Your task to perform on an android device: turn notification dots on Image 0: 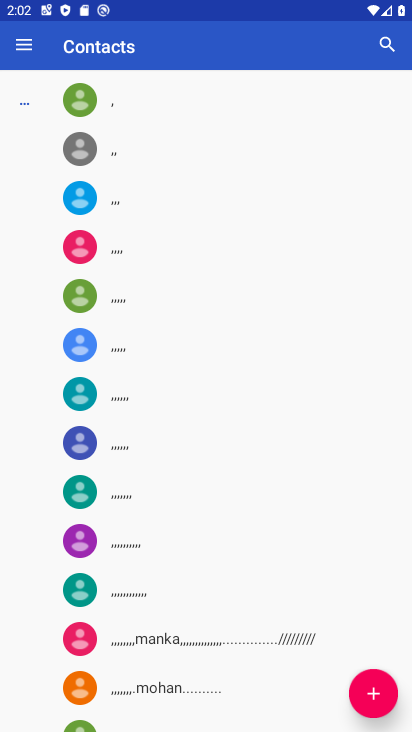
Step 0: press back button
Your task to perform on an android device: turn notification dots on Image 1: 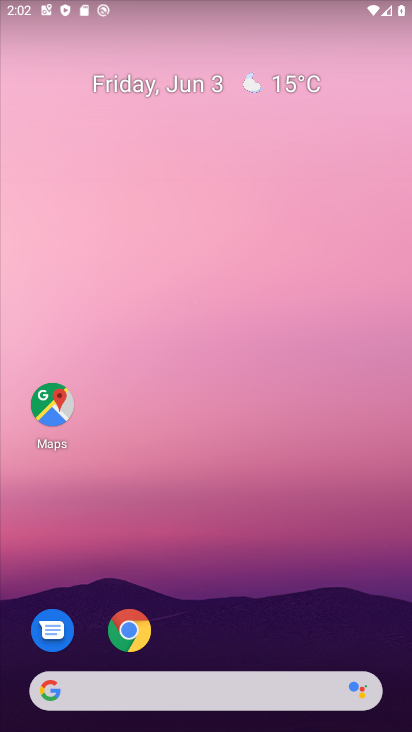
Step 1: drag from (213, 461) to (206, 21)
Your task to perform on an android device: turn notification dots on Image 2: 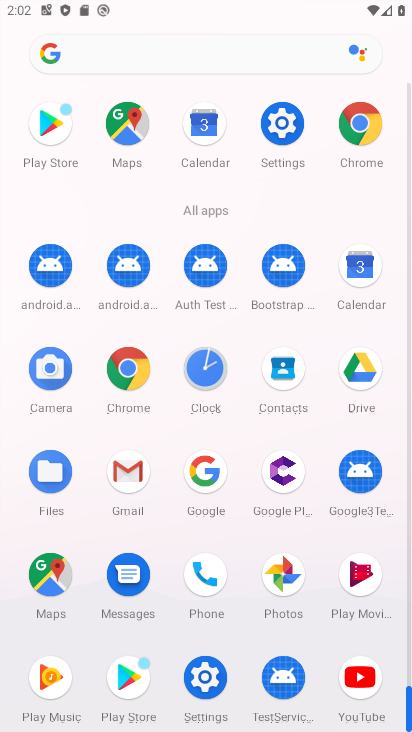
Step 2: click (202, 673)
Your task to perform on an android device: turn notification dots on Image 3: 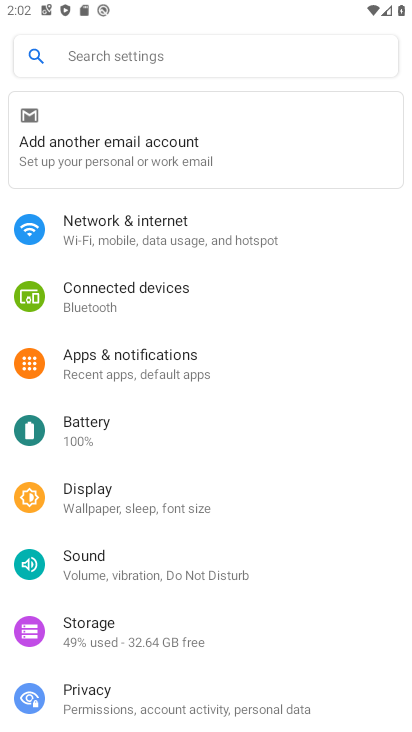
Step 3: click (161, 353)
Your task to perform on an android device: turn notification dots on Image 4: 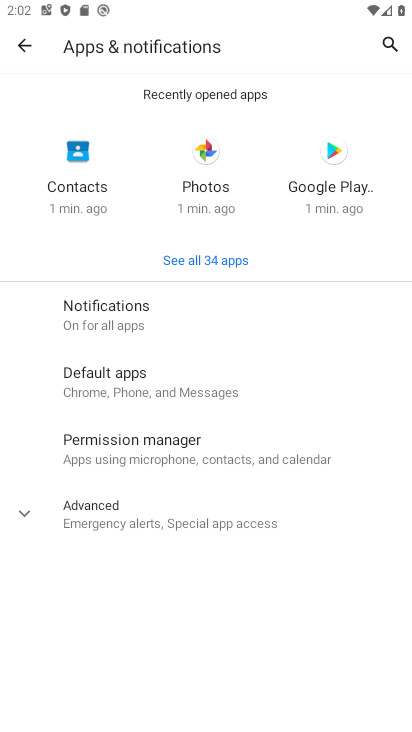
Step 4: click (139, 320)
Your task to perform on an android device: turn notification dots on Image 5: 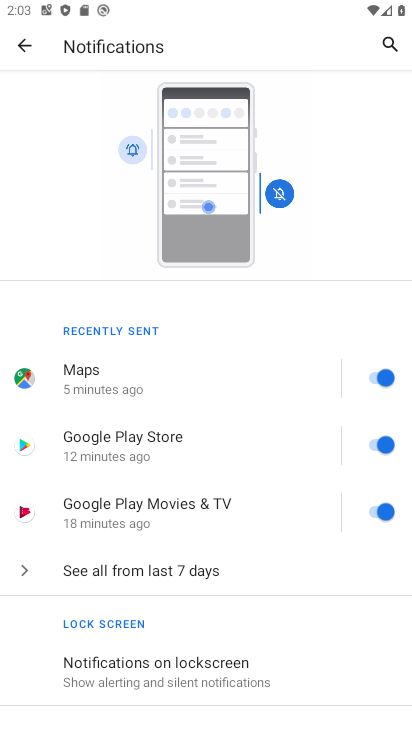
Step 5: drag from (249, 600) to (284, 151)
Your task to perform on an android device: turn notification dots on Image 6: 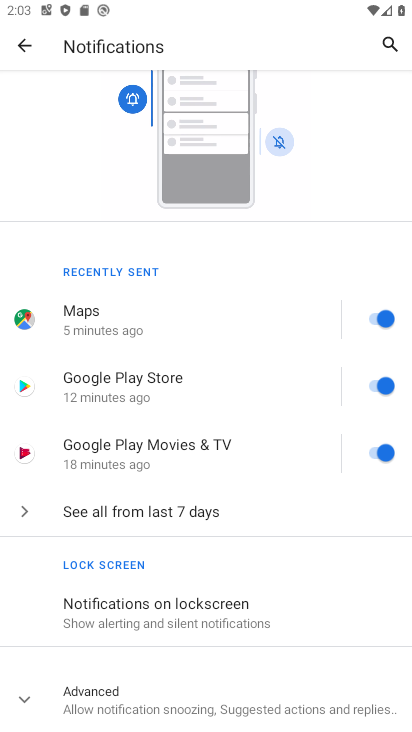
Step 6: click (106, 688)
Your task to perform on an android device: turn notification dots on Image 7: 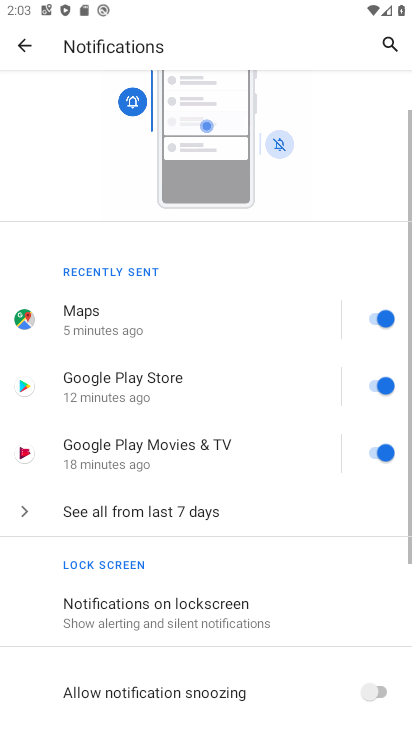
Step 7: task complete